Your task to perform on an android device: change the clock style Image 0: 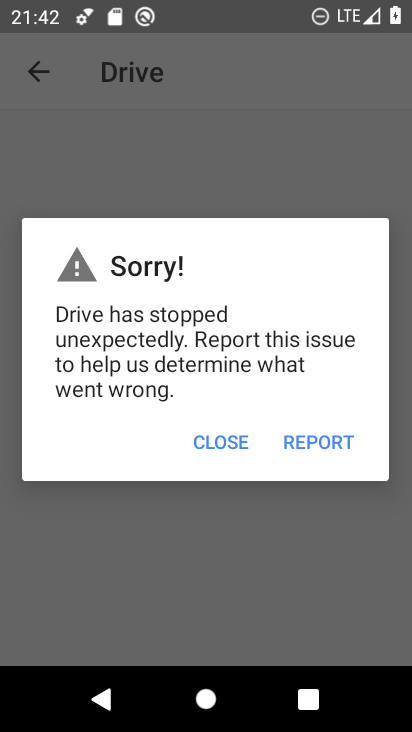
Step 0: press home button
Your task to perform on an android device: change the clock style Image 1: 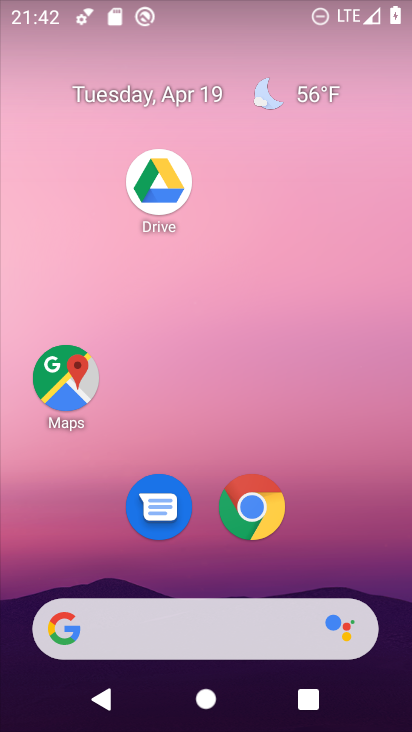
Step 1: drag from (369, 562) to (369, 142)
Your task to perform on an android device: change the clock style Image 2: 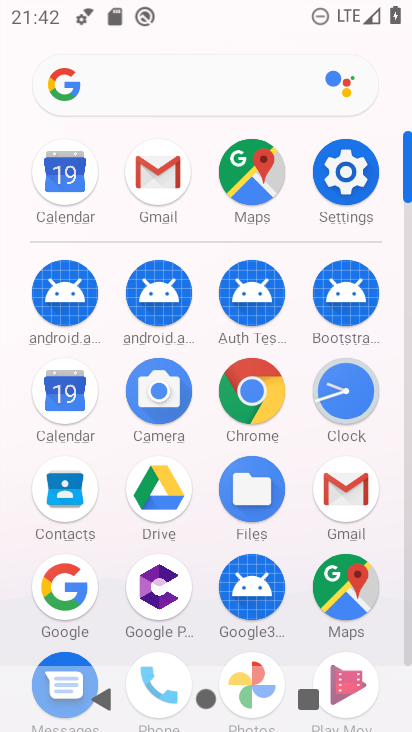
Step 2: click (343, 392)
Your task to perform on an android device: change the clock style Image 3: 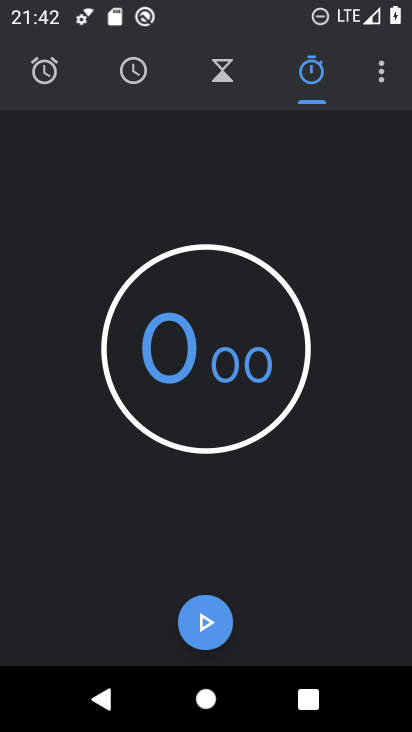
Step 3: click (384, 78)
Your task to perform on an android device: change the clock style Image 4: 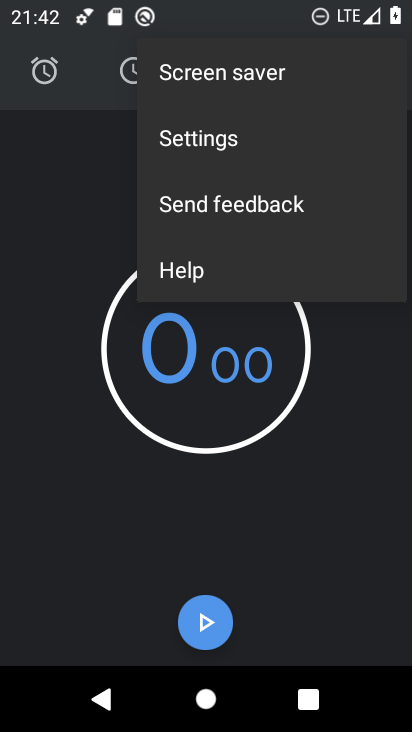
Step 4: click (311, 148)
Your task to perform on an android device: change the clock style Image 5: 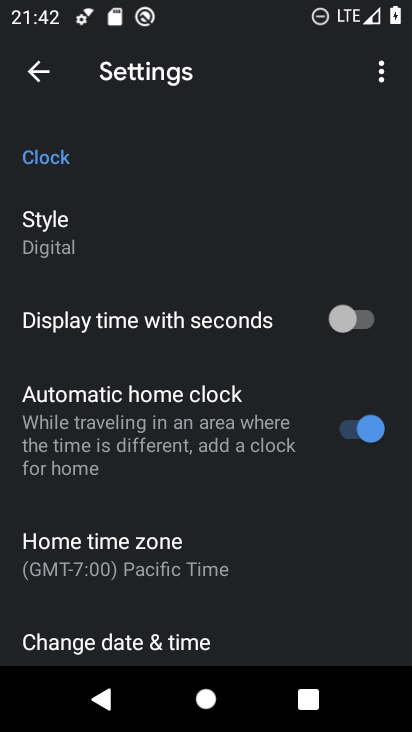
Step 5: click (146, 242)
Your task to perform on an android device: change the clock style Image 6: 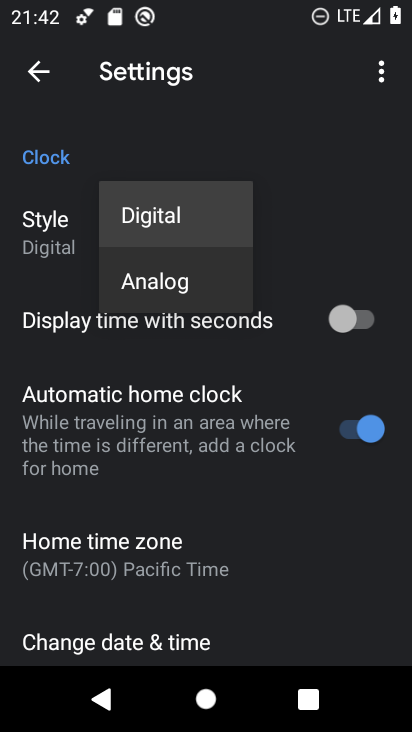
Step 6: click (152, 274)
Your task to perform on an android device: change the clock style Image 7: 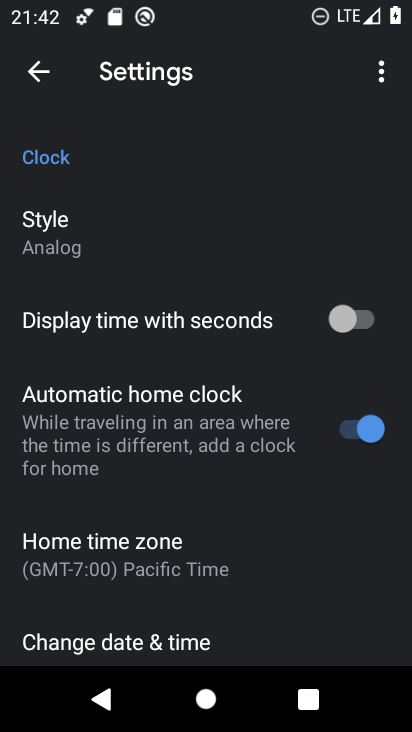
Step 7: click (42, 69)
Your task to perform on an android device: change the clock style Image 8: 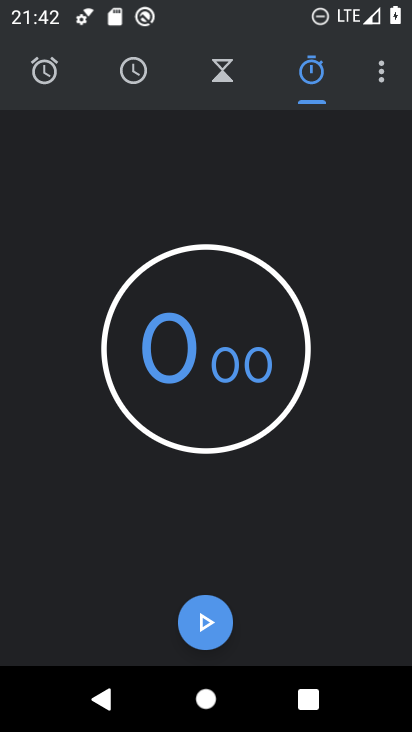
Step 8: click (130, 65)
Your task to perform on an android device: change the clock style Image 9: 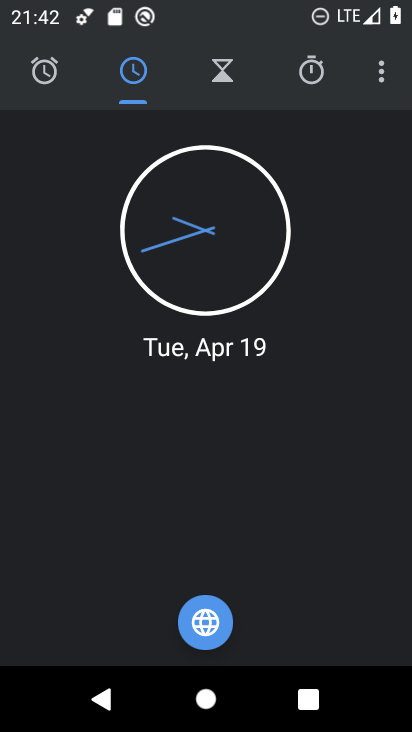
Step 9: task complete